Your task to perform on an android device: Open calendar and show me the third week of next month Image 0: 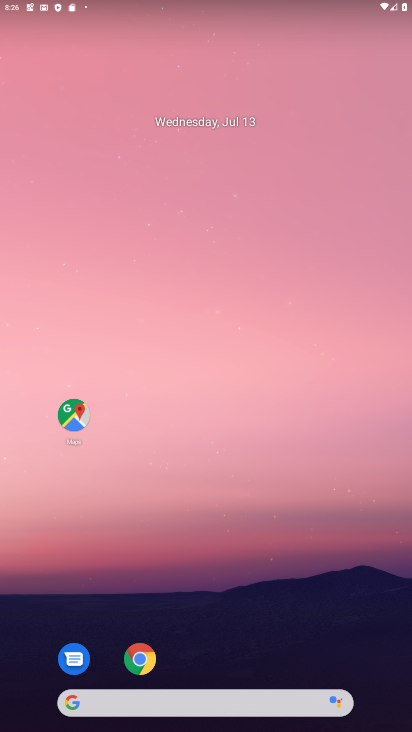
Step 0: drag from (26, 709) to (205, 72)
Your task to perform on an android device: Open calendar and show me the third week of next month Image 1: 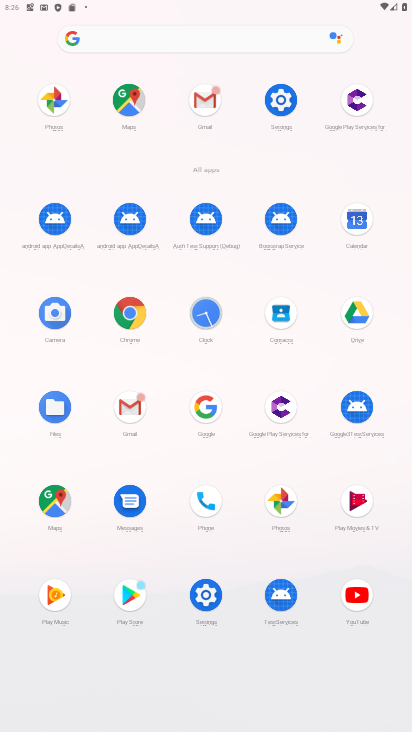
Step 1: click (357, 225)
Your task to perform on an android device: Open calendar and show me the third week of next month Image 2: 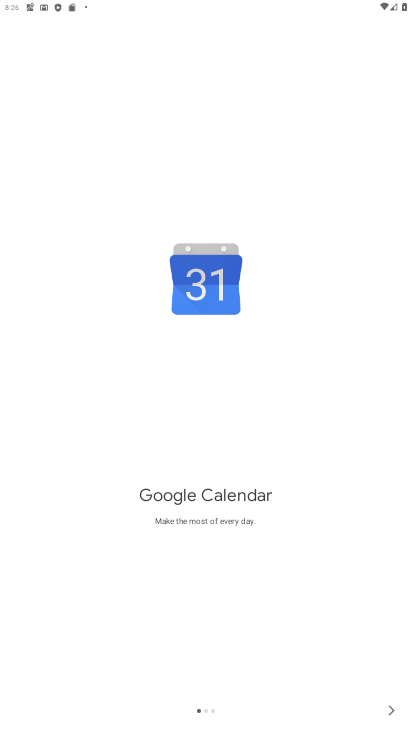
Step 2: click (394, 713)
Your task to perform on an android device: Open calendar and show me the third week of next month Image 3: 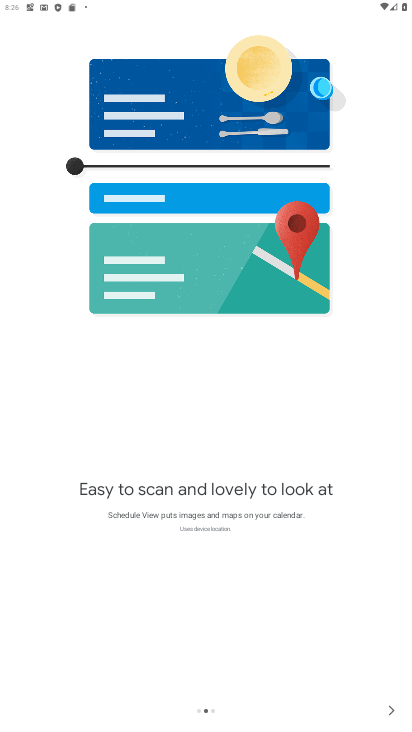
Step 3: click (392, 711)
Your task to perform on an android device: Open calendar and show me the third week of next month Image 4: 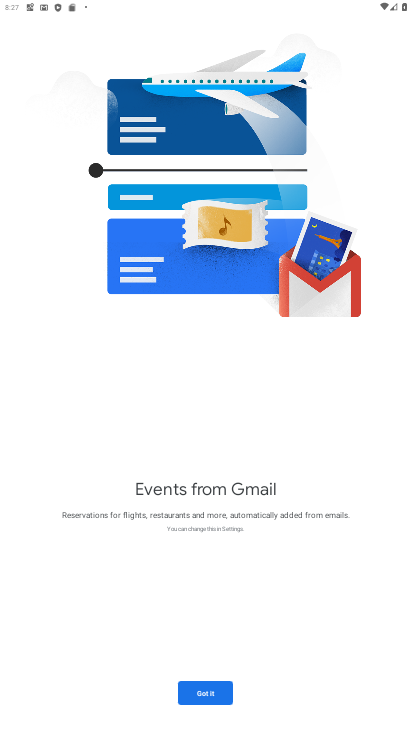
Step 4: click (201, 694)
Your task to perform on an android device: Open calendar and show me the third week of next month Image 5: 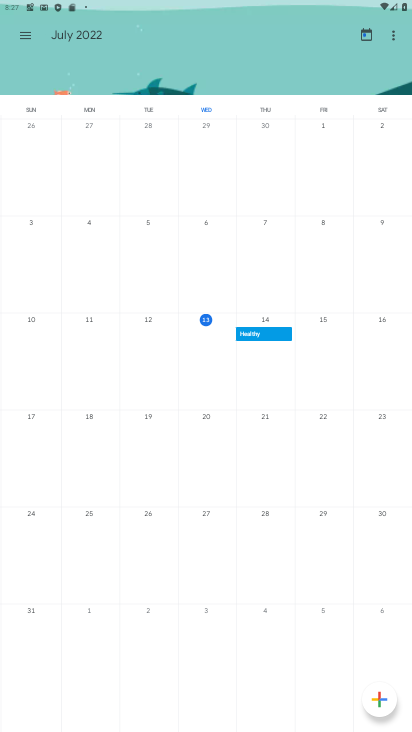
Step 5: drag from (323, 282) to (33, 267)
Your task to perform on an android device: Open calendar and show me the third week of next month Image 6: 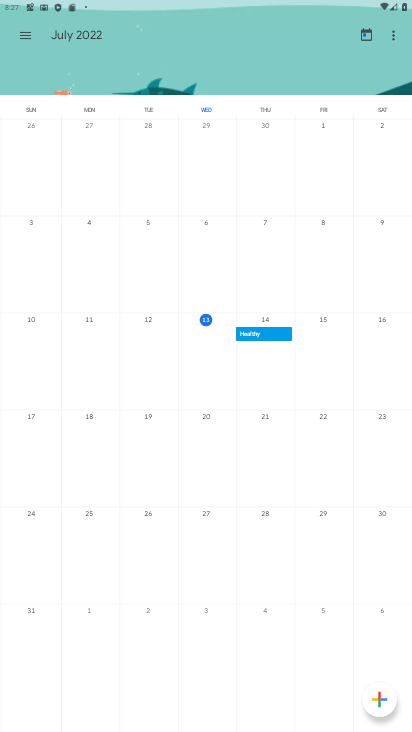
Step 6: drag from (397, 192) to (11, 187)
Your task to perform on an android device: Open calendar and show me the third week of next month Image 7: 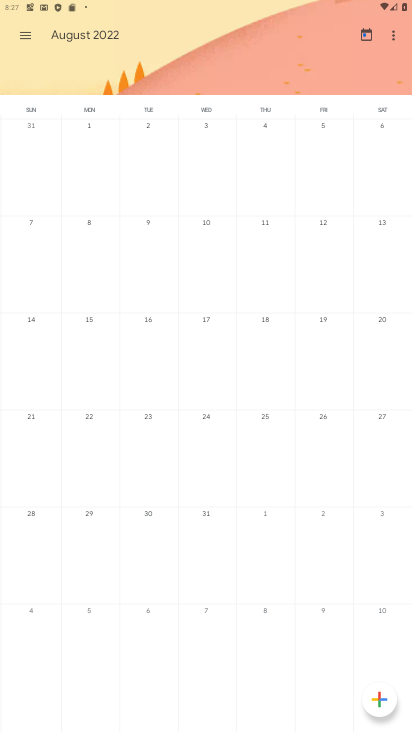
Step 7: click (88, 325)
Your task to perform on an android device: Open calendar and show me the third week of next month Image 8: 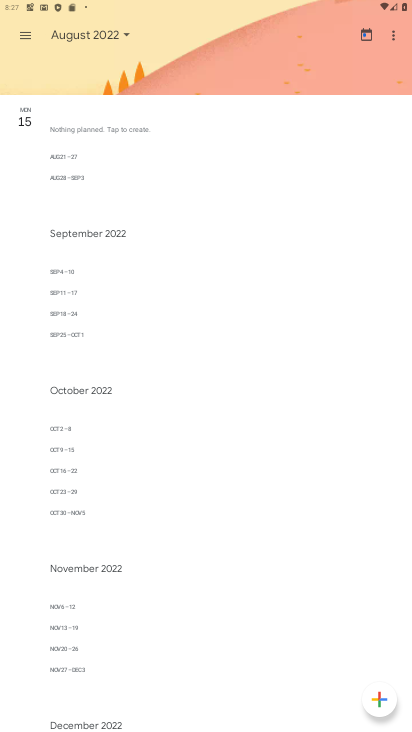
Step 8: task complete